Your task to perform on an android device: Open Google Maps Image 0: 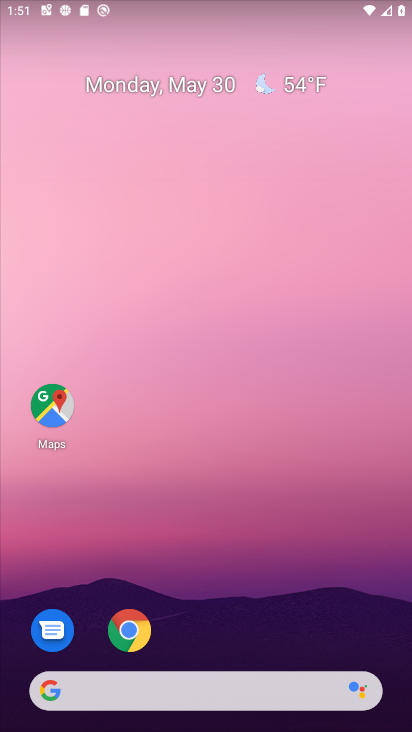
Step 0: press home button
Your task to perform on an android device: Open Google Maps Image 1: 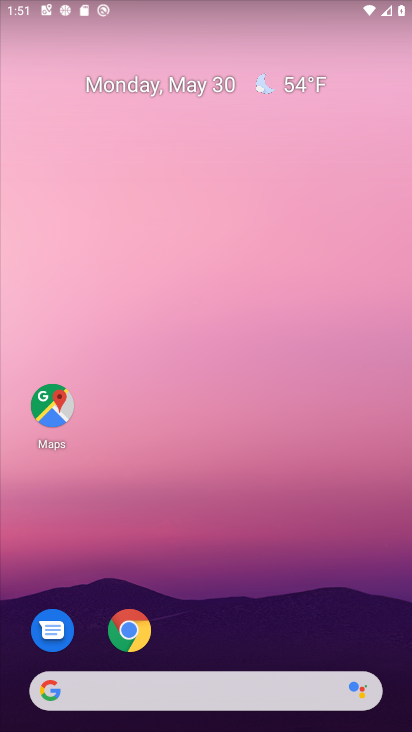
Step 1: click (53, 412)
Your task to perform on an android device: Open Google Maps Image 2: 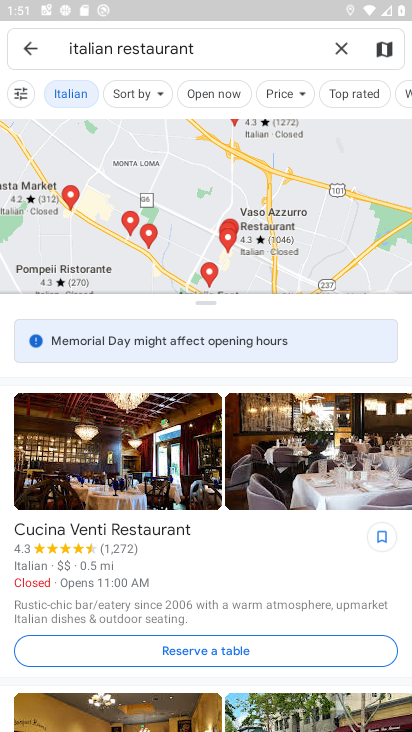
Step 2: click (22, 52)
Your task to perform on an android device: Open Google Maps Image 3: 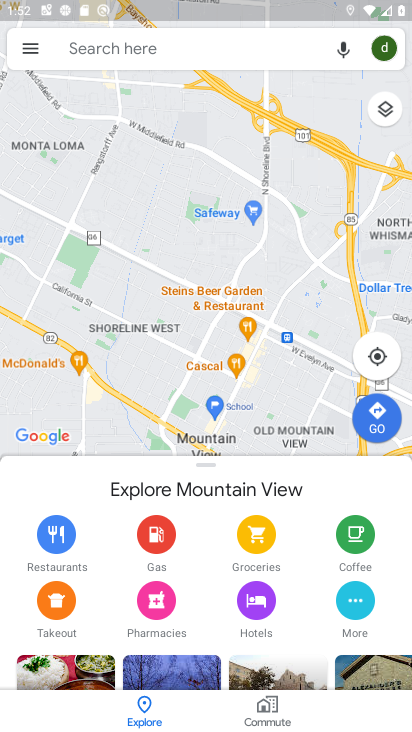
Step 3: task complete